Your task to perform on an android device: Open CNN.com Image 0: 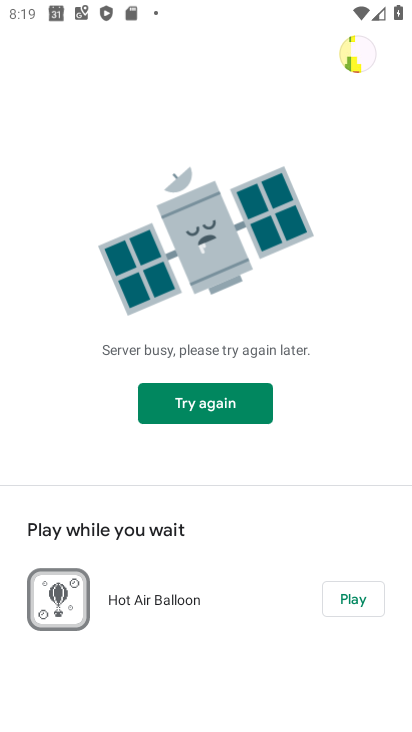
Step 0: press home button
Your task to perform on an android device: Open CNN.com Image 1: 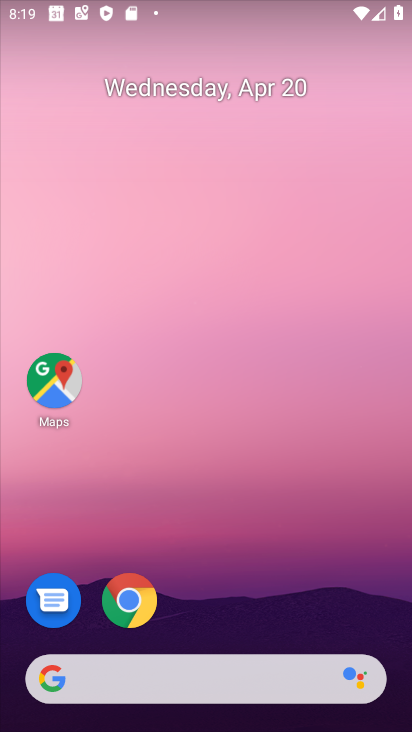
Step 1: click (126, 600)
Your task to perform on an android device: Open CNN.com Image 2: 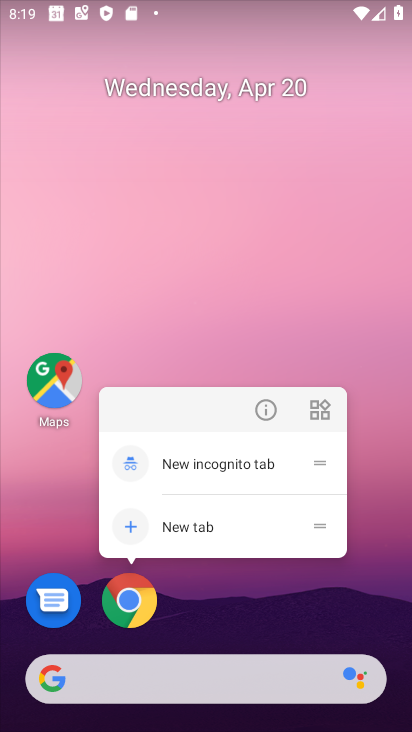
Step 2: click (139, 605)
Your task to perform on an android device: Open CNN.com Image 3: 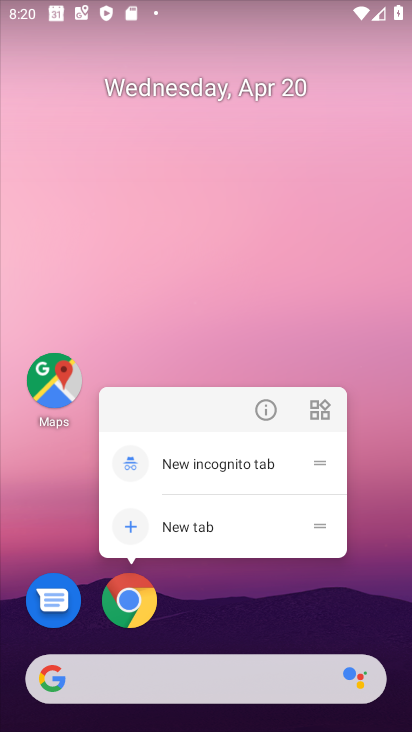
Step 3: click (129, 599)
Your task to perform on an android device: Open CNN.com Image 4: 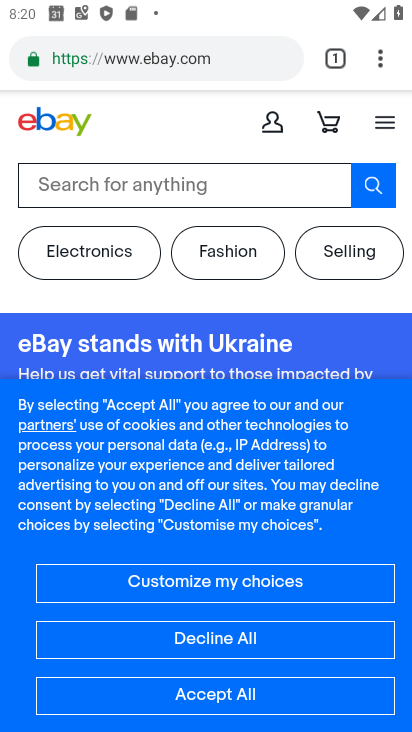
Step 4: click (196, 63)
Your task to perform on an android device: Open CNN.com Image 5: 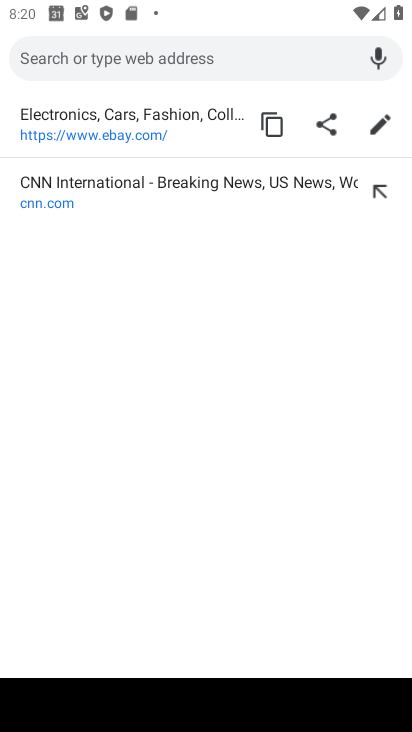
Step 5: click (40, 204)
Your task to perform on an android device: Open CNN.com Image 6: 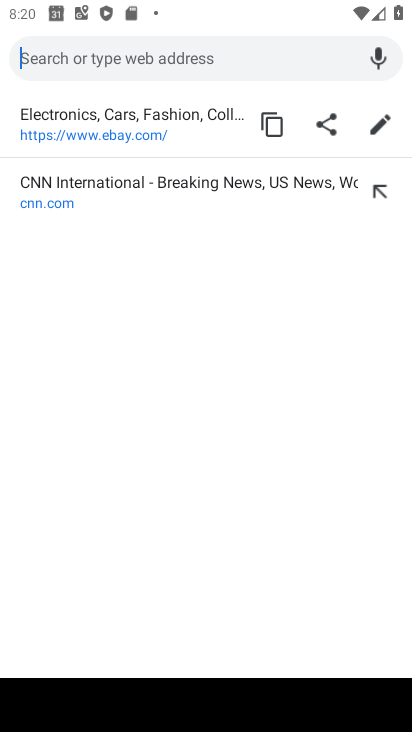
Step 6: click (55, 201)
Your task to perform on an android device: Open CNN.com Image 7: 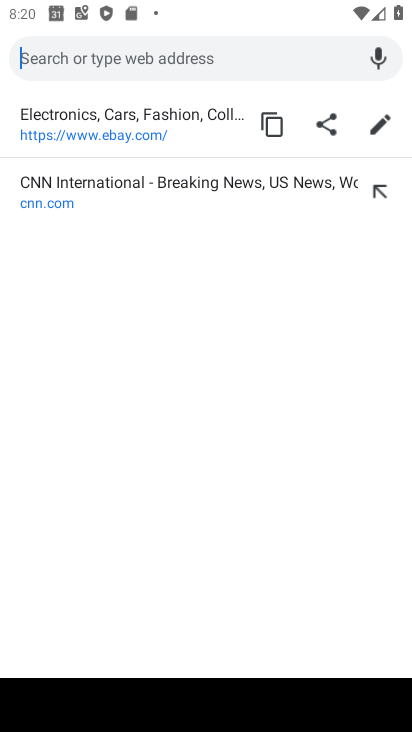
Step 7: click (35, 202)
Your task to perform on an android device: Open CNN.com Image 8: 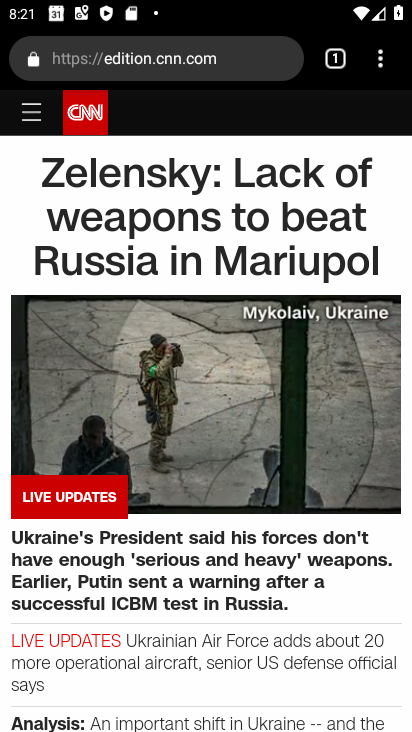
Step 8: task complete